Your task to perform on an android device: Open settings on Google Maps Image 0: 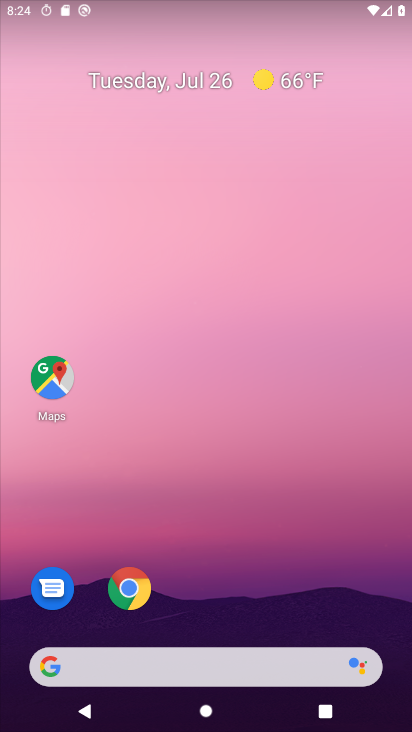
Step 0: drag from (242, 722) to (196, 55)
Your task to perform on an android device: Open settings on Google Maps Image 1: 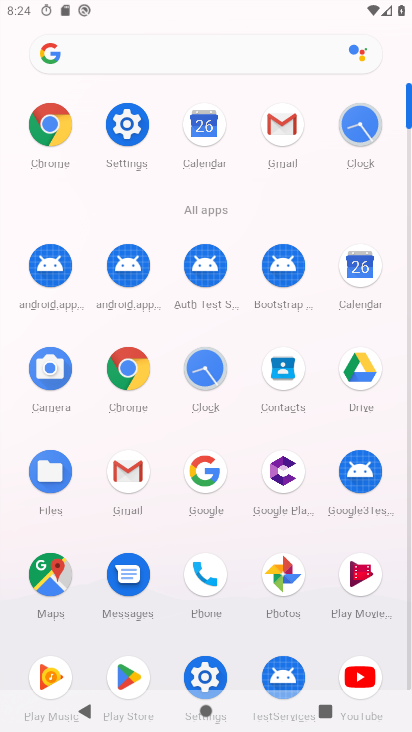
Step 1: click (47, 576)
Your task to perform on an android device: Open settings on Google Maps Image 2: 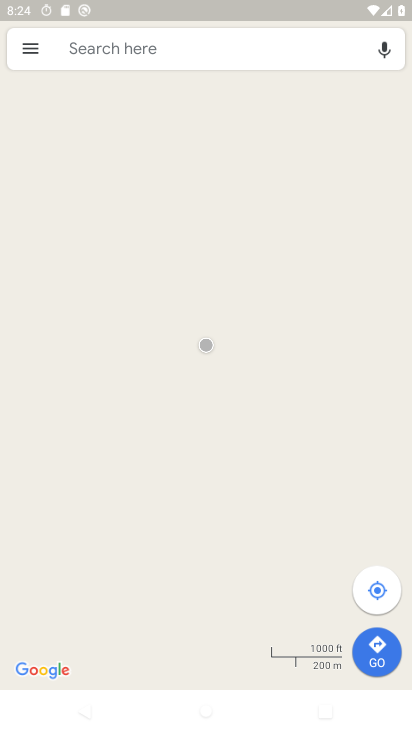
Step 2: click (24, 42)
Your task to perform on an android device: Open settings on Google Maps Image 3: 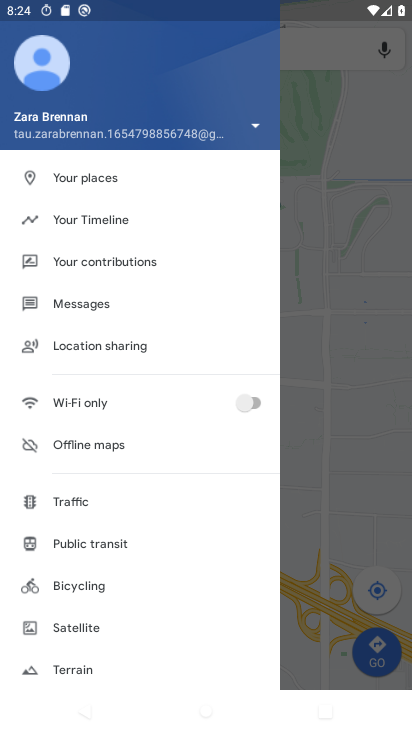
Step 3: drag from (116, 659) to (114, 268)
Your task to perform on an android device: Open settings on Google Maps Image 4: 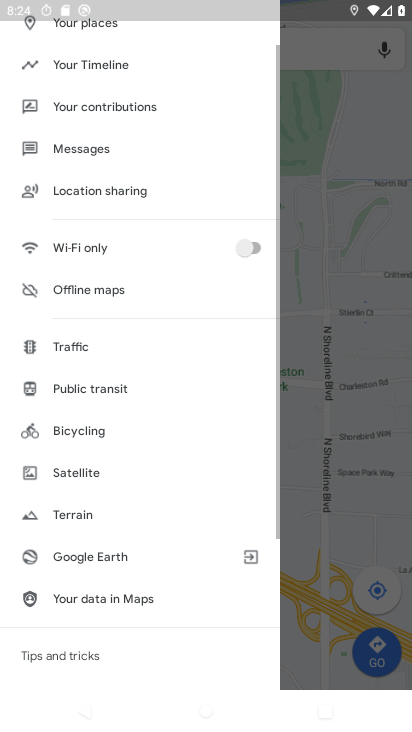
Step 4: drag from (85, 654) to (85, 343)
Your task to perform on an android device: Open settings on Google Maps Image 5: 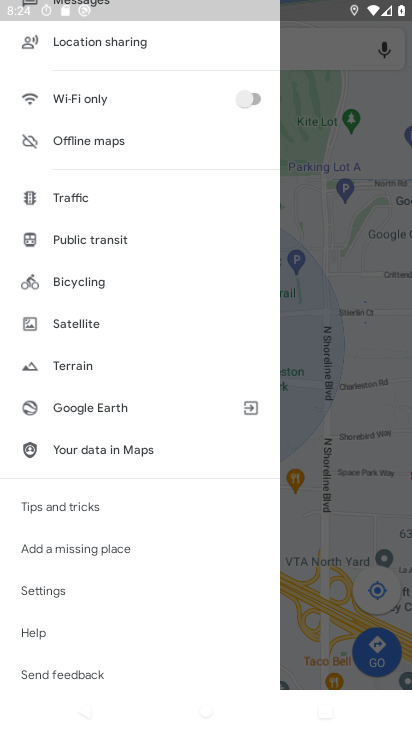
Step 5: click (47, 583)
Your task to perform on an android device: Open settings on Google Maps Image 6: 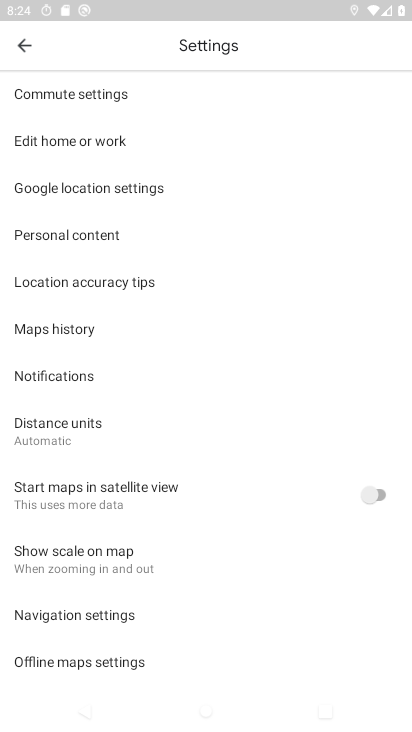
Step 6: task complete